Your task to perform on an android device: toggle javascript in the chrome app Image 0: 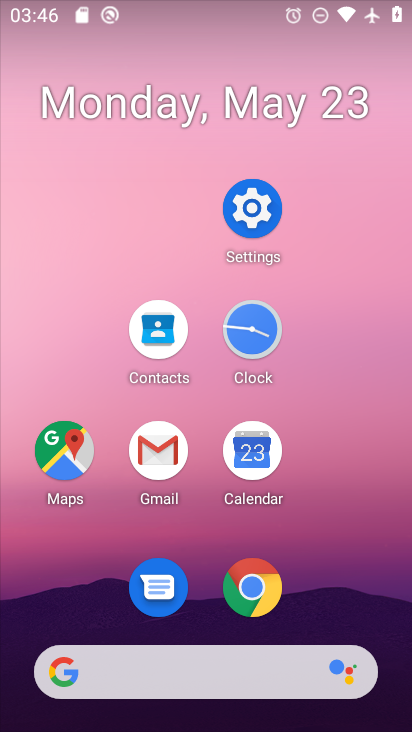
Step 0: click (262, 213)
Your task to perform on an android device: toggle javascript in the chrome app Image 1: 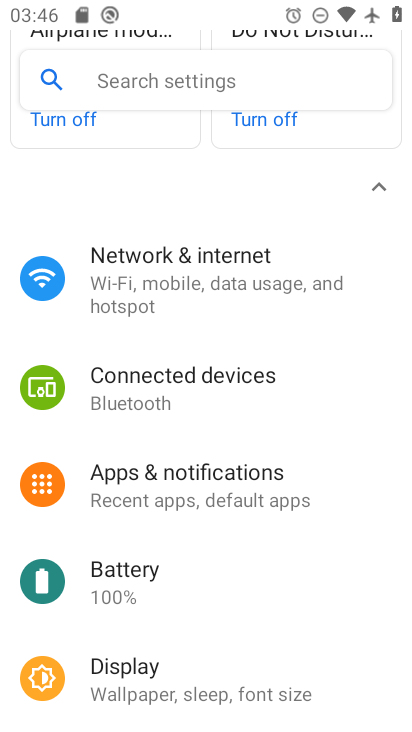
Step 1: drag from (213, 588) to (226, 215)
Your task to perform on an android device: toggle javascript in the chrome app Image 2: 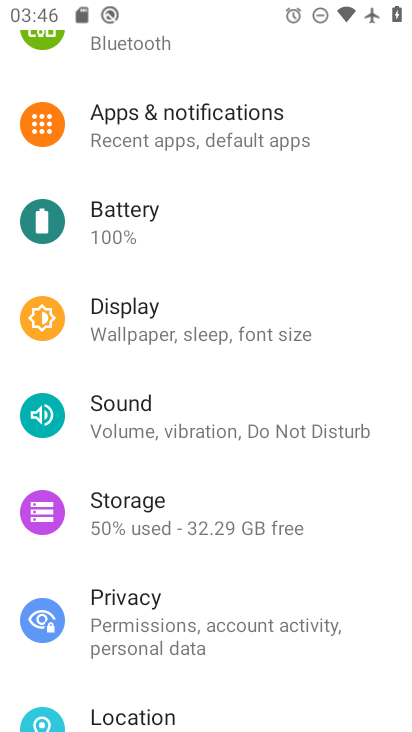
Step 2: press home button
Your task to perform on an android device: toggle javascript in the chrome app Image 3: 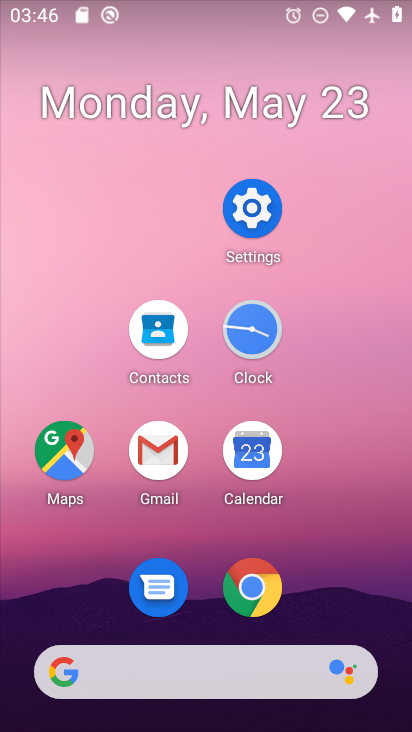
Step 3: click (261, 247)
Your task to perform on an android device: toggle javascript in the chrome app Image 4: 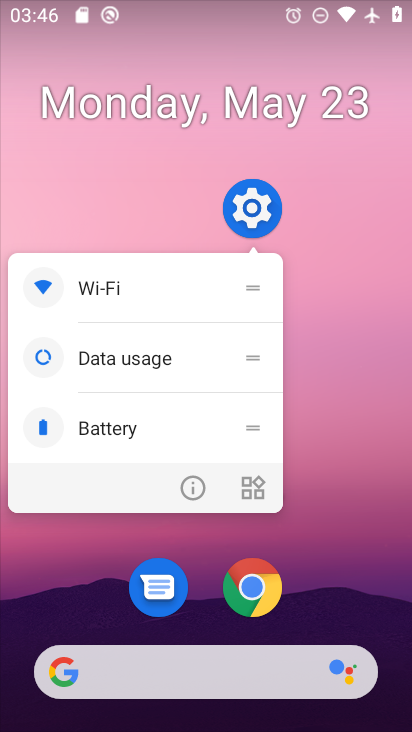
Step 4: click (270, 600)
Your task to perform on an android device: toggle javascript in the chrome app Image 5: 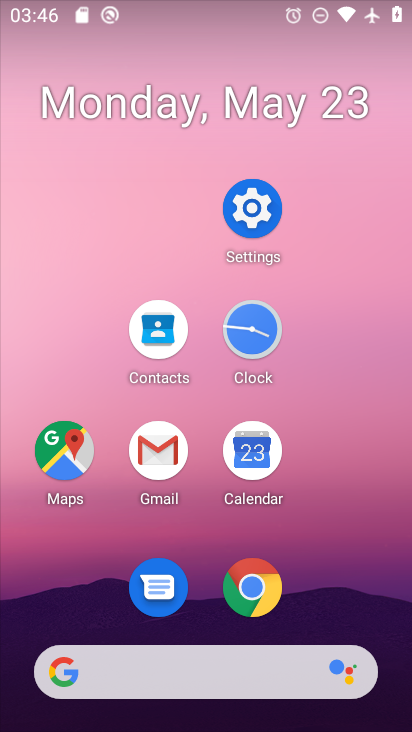
Step 5: click (270, 600)
Your task to perform on an android device: toggle javascript in the chrome app Image 6: 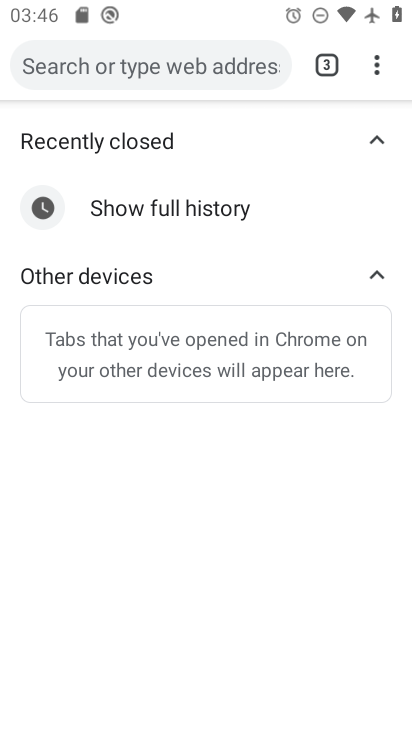
Step 6: click (367, 72)
Your task to perform on an android device: toggle javascript in the chrome app Image 7: 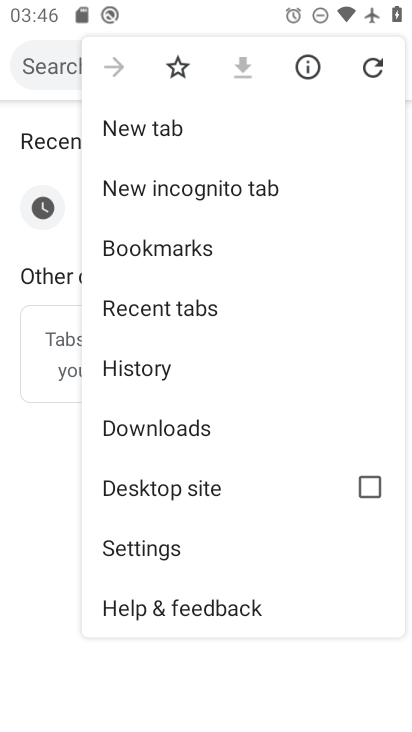
Step 7: click (171, 542)
Your task to perform on an android device: toggle javascript in the chrome app Image 8: 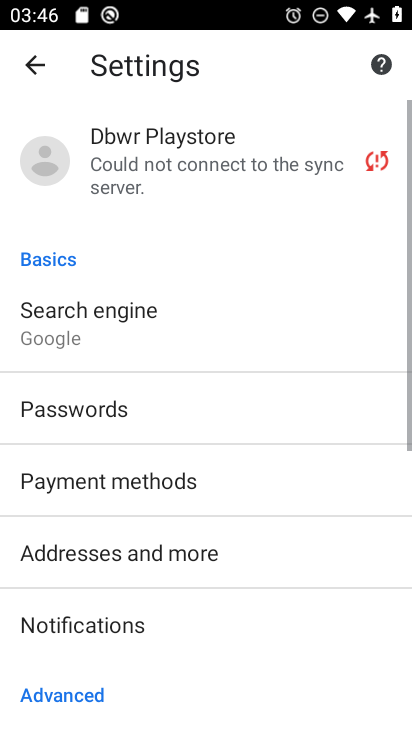
Step 8: drag from (225, 615) to (234, 208)
Your task to perform on an android device: toggle javascript in the chrome app Image 9: 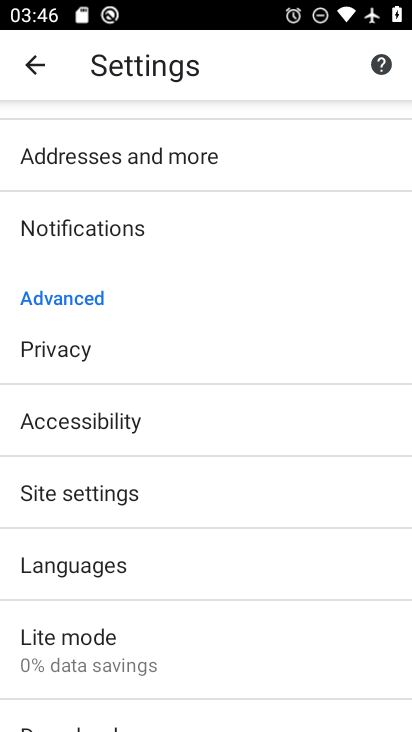
Step 9: click (186, 498)
Your task to perform on an android device: toggle javascript in the chrome app Image 10: 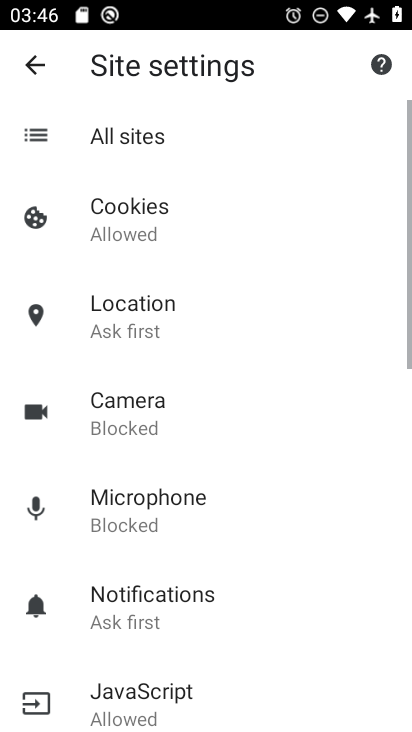
Step 10: click (185, 701)
Your task to perform on an android device: toggle javascript in the chrome app Image 11: 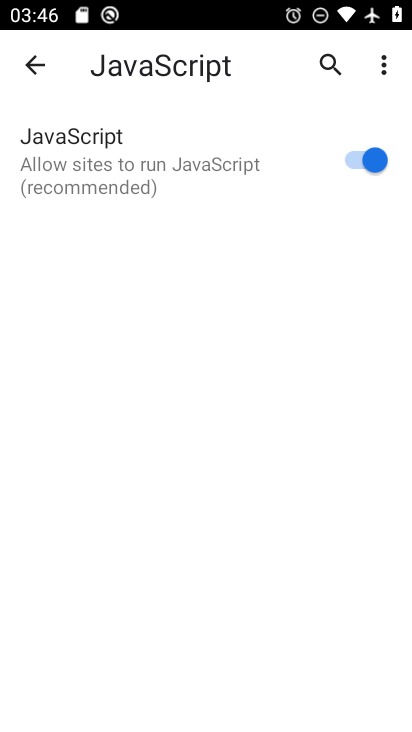
Step 11: task complete